Your task to perform on an android device: What's the weather going to be this weekend? Image 0: 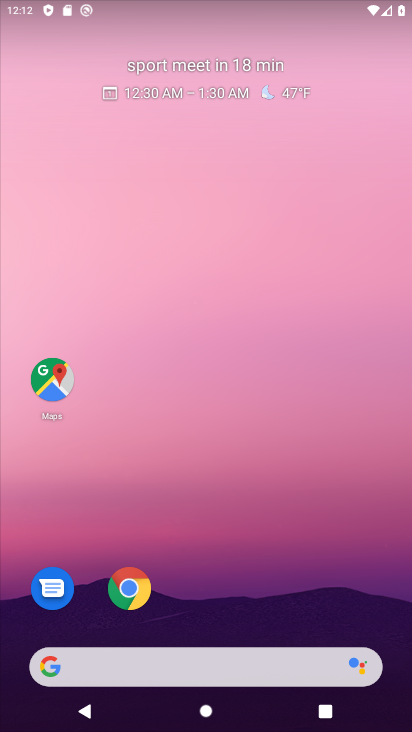
Step 0: click (291, 85)
Your task to perform on an android device: What's the weather going to be this weekend? Image 1: 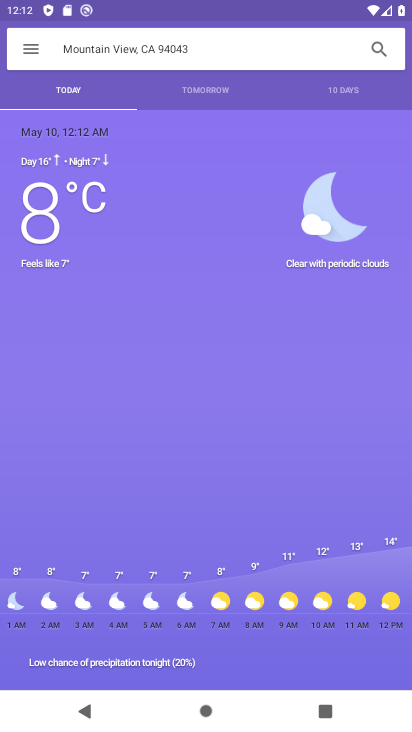
Step 1: click (342, 86)
Your task to perform on an android device: What's the weather going to be this weekend? Image 2: 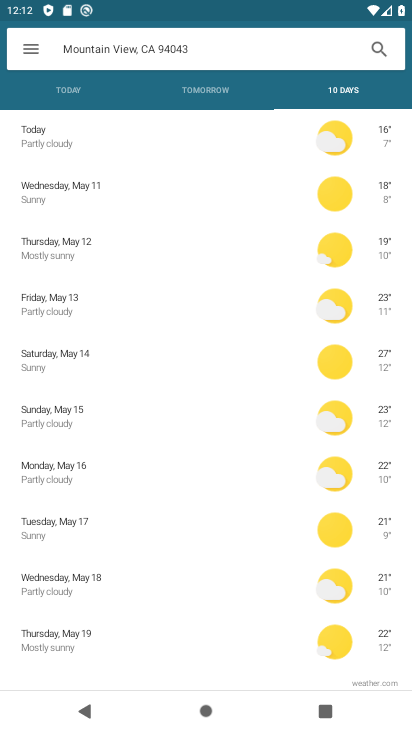
Step 2: click (60, 357)
Your task to perform on an android device: What's the weather going to be this weekend? Image 3: 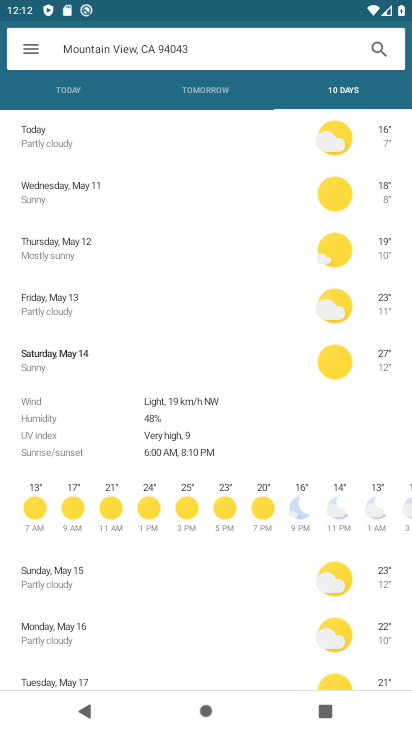
Step 3: task complete